Your task to perform on an android device: star an email in the gmail app Image 0: 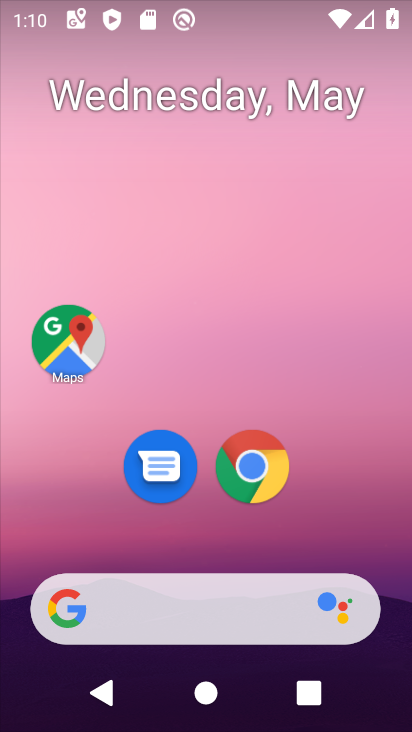
Step 0: drag from (208, 528) to (258, 61)
Your task to perform on an android device: star an email in the gmail app Image 1: 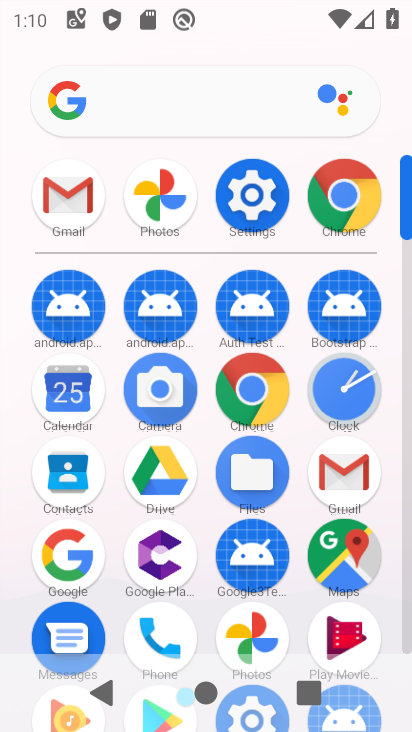
Step 1: click (74, 189)
Your task to perform on an android device: star an email in the gmail app Image 2: 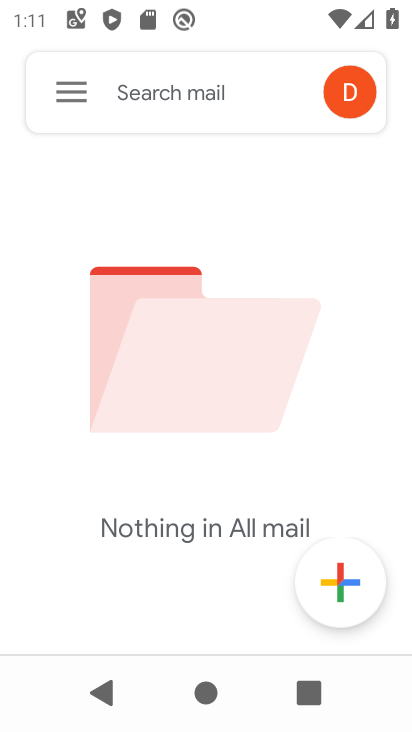
Step 2: task complete